Your task to perform on an android device: turn on the 12-hour format for clock Image 0: 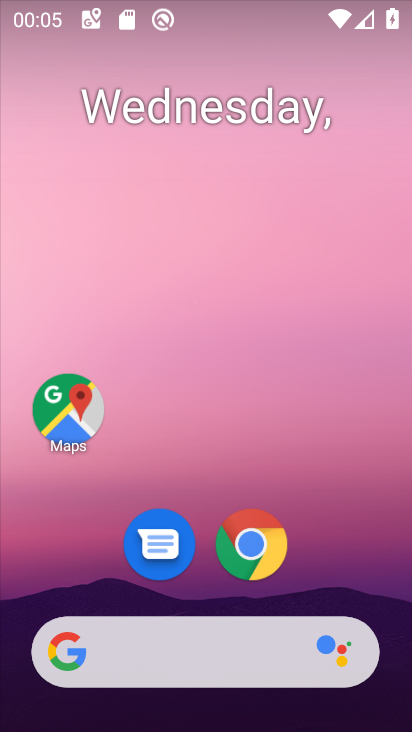
Step 0: drag from (243, 465) to (223, 96)
Your task to perform on an android device: turn on the 12-hour format for clock Image 1: 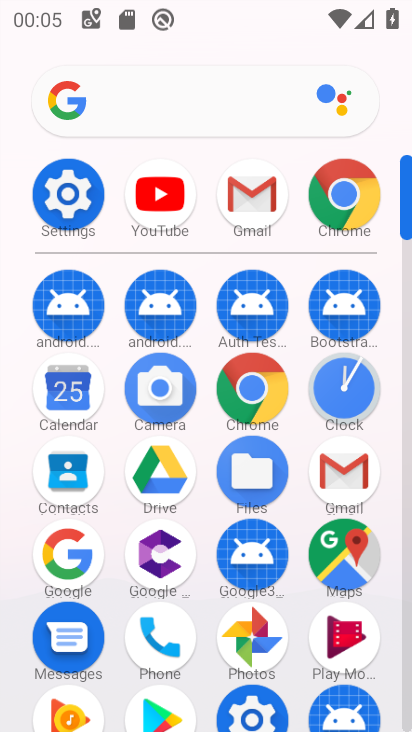
Step 1: drag from (194, 263) to (217, 128)
Your task to perform on an android device: turn on the 12-hour format for clock Image 2: 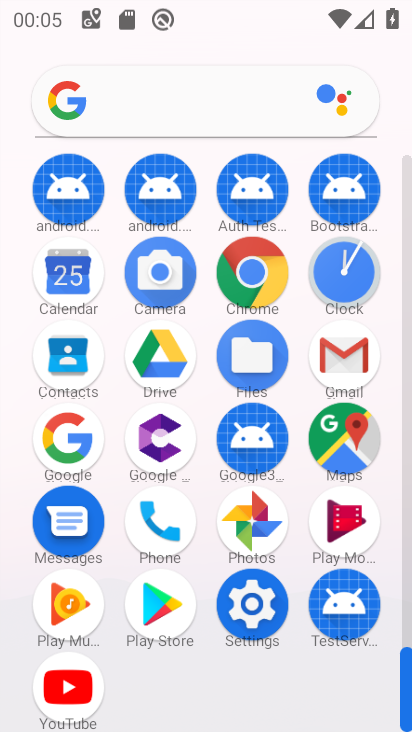
Step 2: click (354, 262)
Your task to perform on an android device: turn on the 12-hour format for clock Image 3: 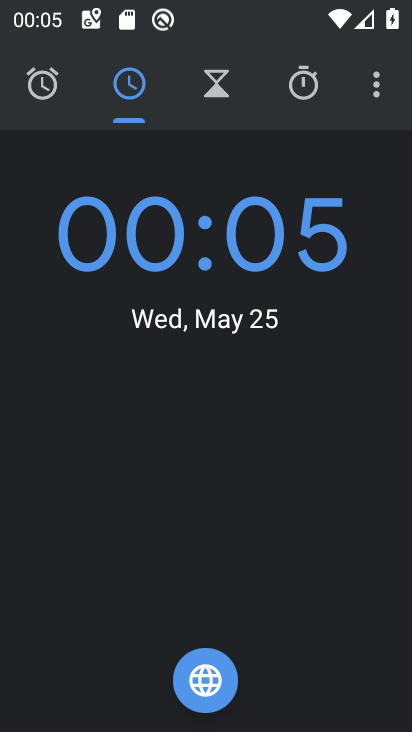
Step 3: click (384, 93)
Your task to perform on an android device: turn on the 12-hour format for clock Image 4: 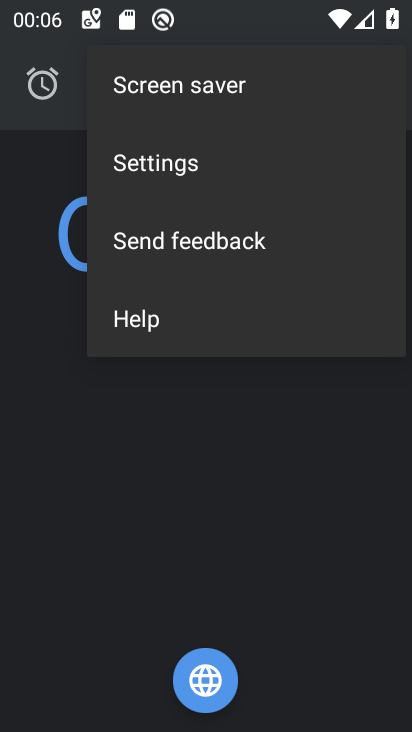
Step 4: click (252, 176)
Your task to perform on an android device: turn on the 12-hour format for clock Image 5: 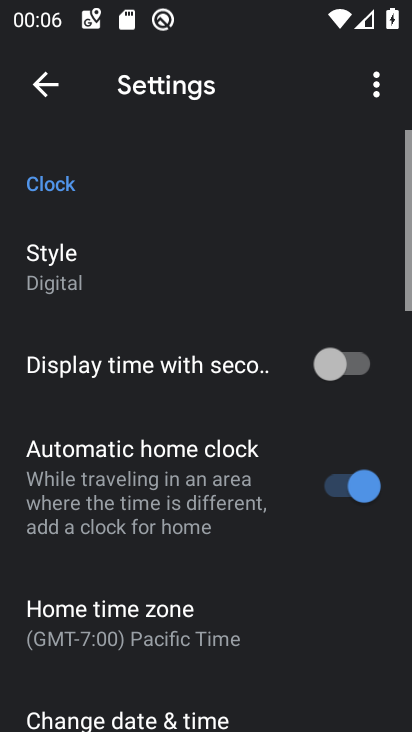
Step 5: drag from (270, 458) to (292, 82)
Your task to perform on an android device: turn on the 12-hour format for clock Image 6: 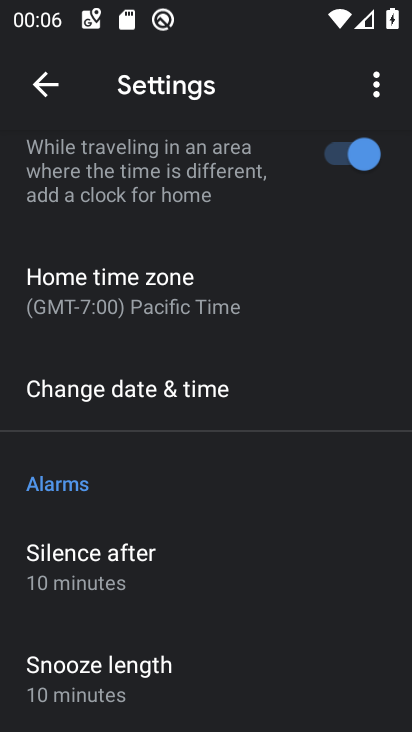
Step 6: click (223, 395)
Your task to perform on an android device: turn on the 12-hour format for clock Image 7: 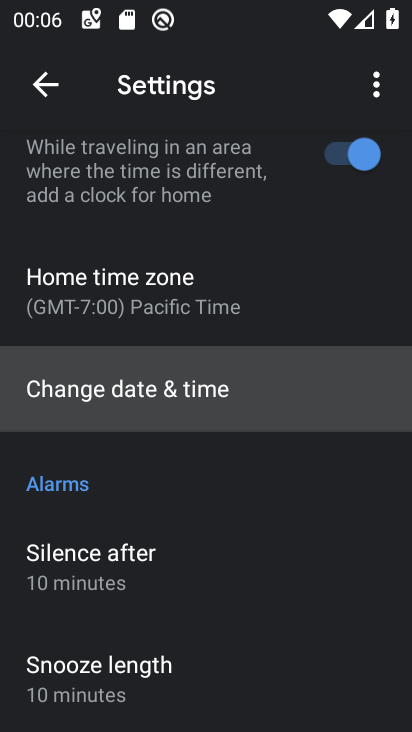
Step 7: drag from (231, 406) to (241, 157)
Your task to perform on an android device: turn on the 12-hour format for clock Image 8: 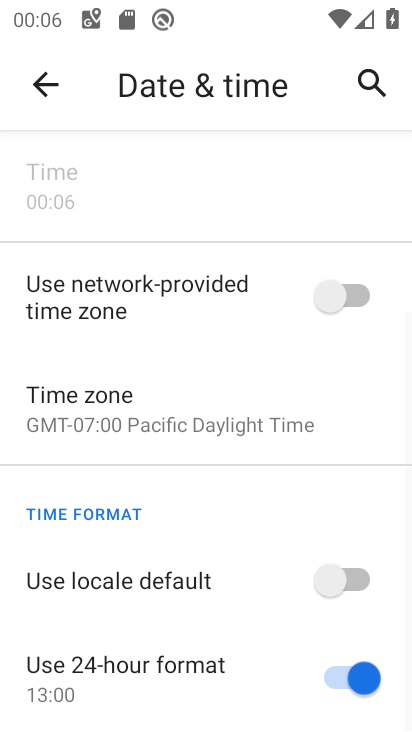
Step 8: drag from (268, 496) to (261, 167)
Your task to perform on an android device: turn on the 12-hour format for clock Image 9: 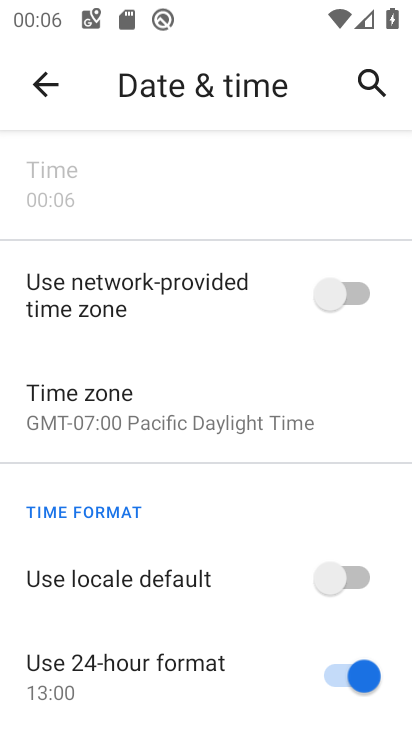
Step 9: click (342, 565)
Your task to perform on an android device: turn on the 12-hour format for clock Image 10: 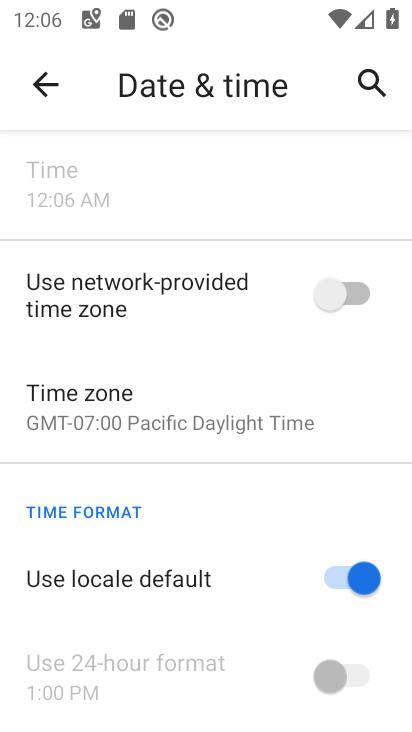
Step 10: click (370, 585)
Your task to perform on an android device: turn on the 12-hour format for clock Image 11: 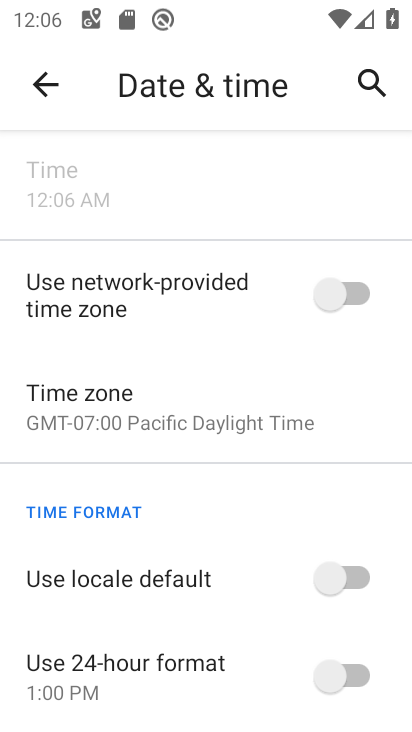
Step 11: click (351, 585)
Your task to perform on an android device: turn on the 12-hour format for clock Image 12: 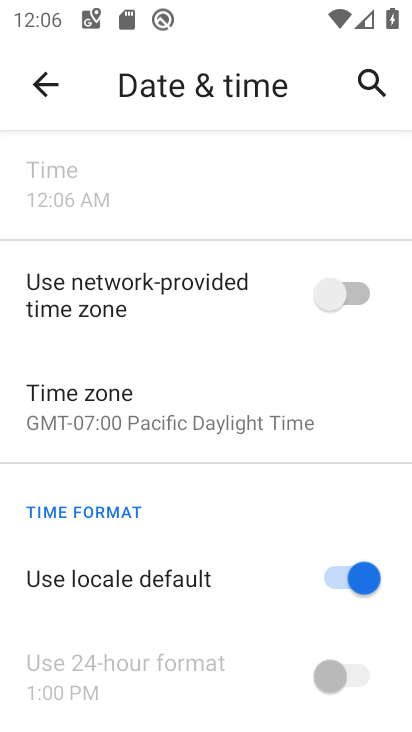
Step 12: task complete